Your task to perform on an android device: toggle show notifications on the lock screen Image 0: 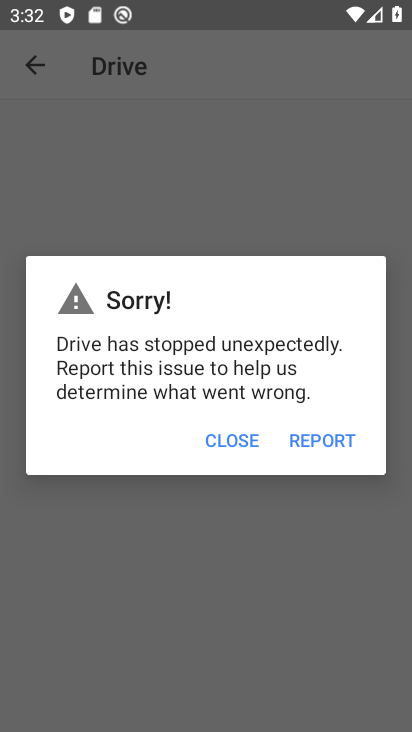
Step 0: press home button
Your task to perform on an android device: toggle show notifications on the lock screen Image 1: 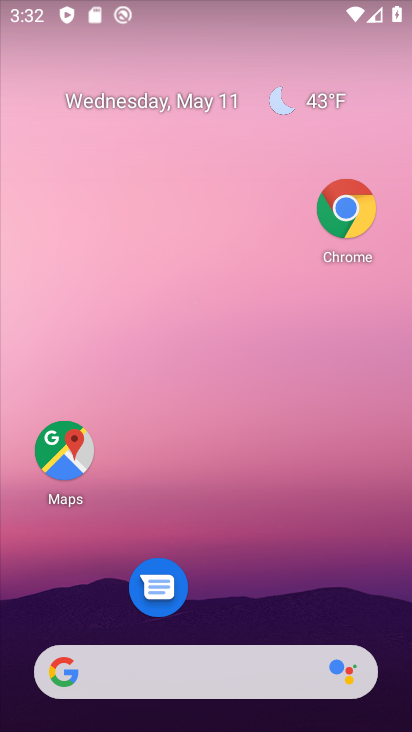
Step 1: task complete